Your task to perform on an android device: Show the shopping cart on target. Add "beats solo 3" to the cart on target, then select checkout. Image 0: 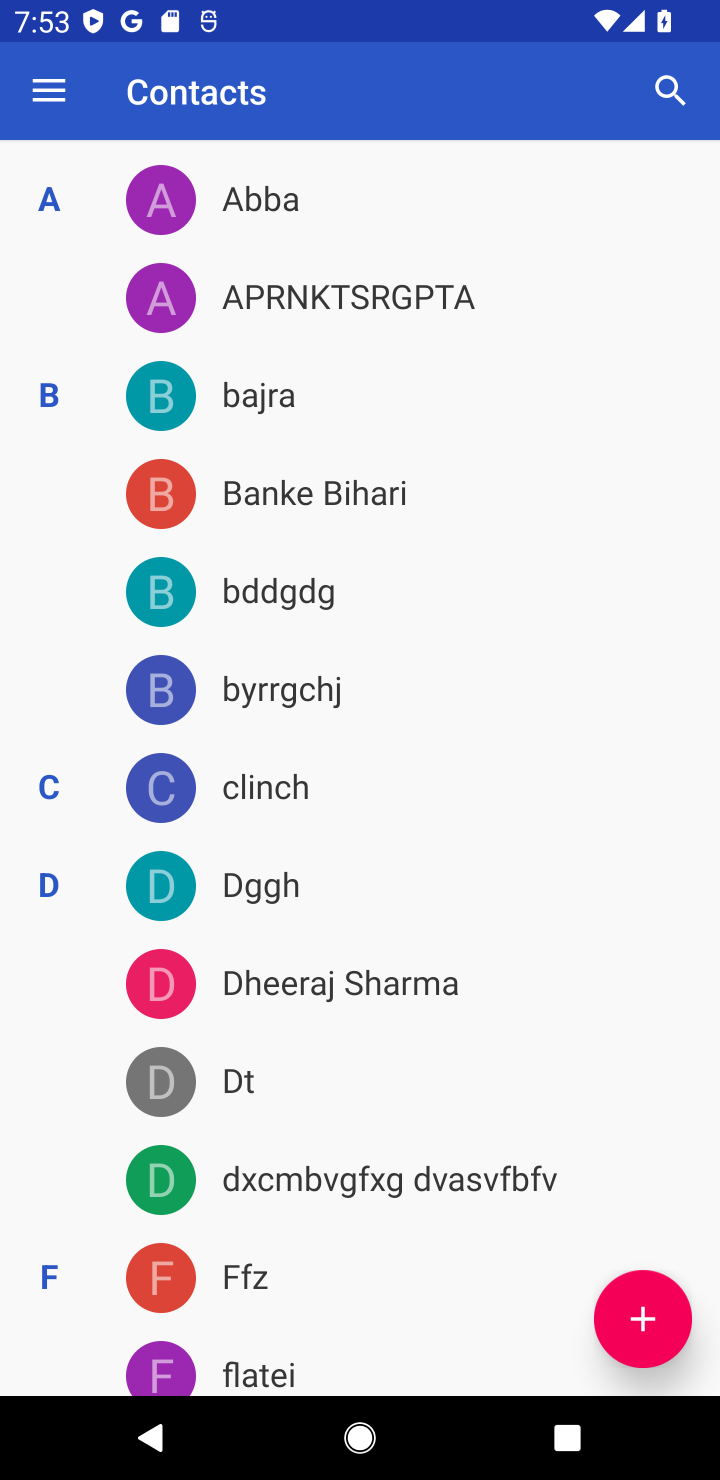
Step 0: press home button
Your task to perform on an android device: Show the shopping cart on target. Add "beats solo 3" to the cart on target, then select checkout. Image 1: 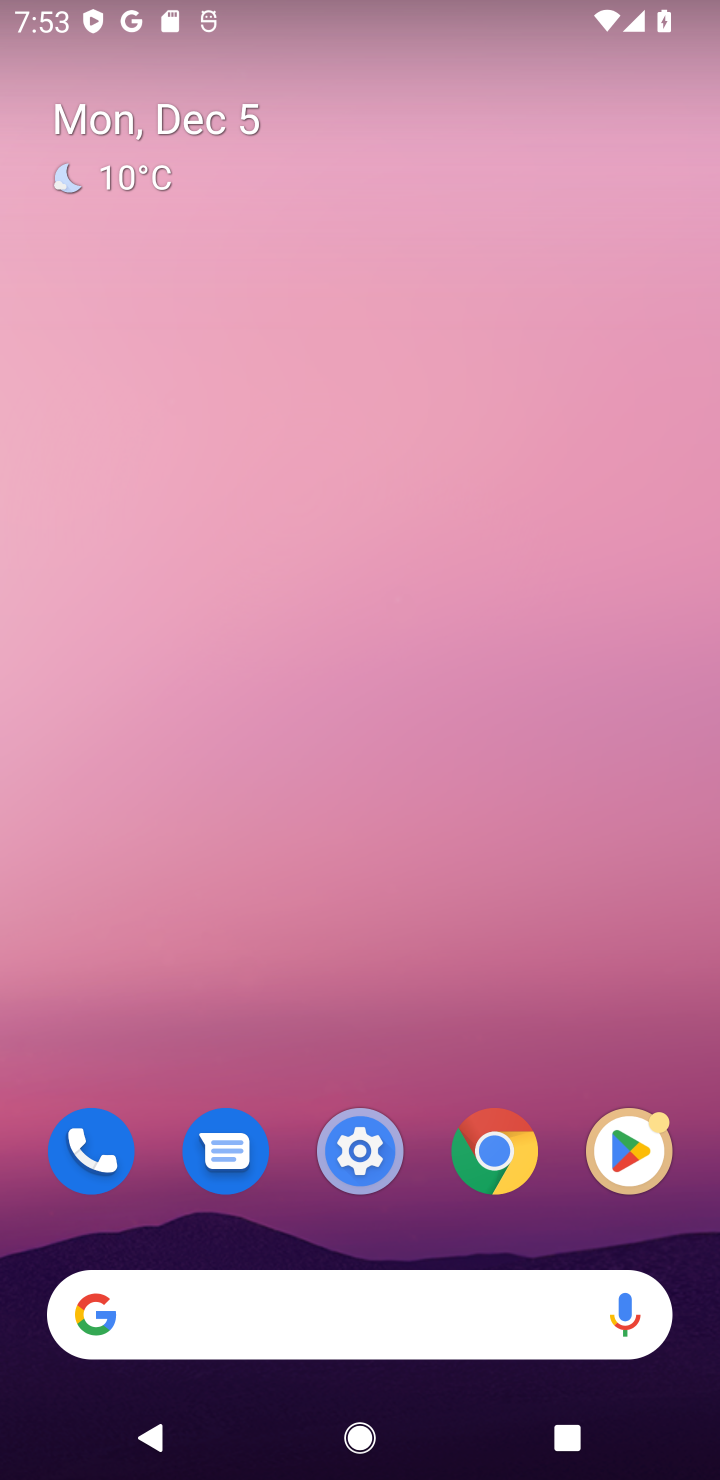
Step 1: click (261, 1322)
Your task to perform on an android device: Show the shopping cart on target. Add "beats solo 3" to the cart on target, then select checkout. Image 2: 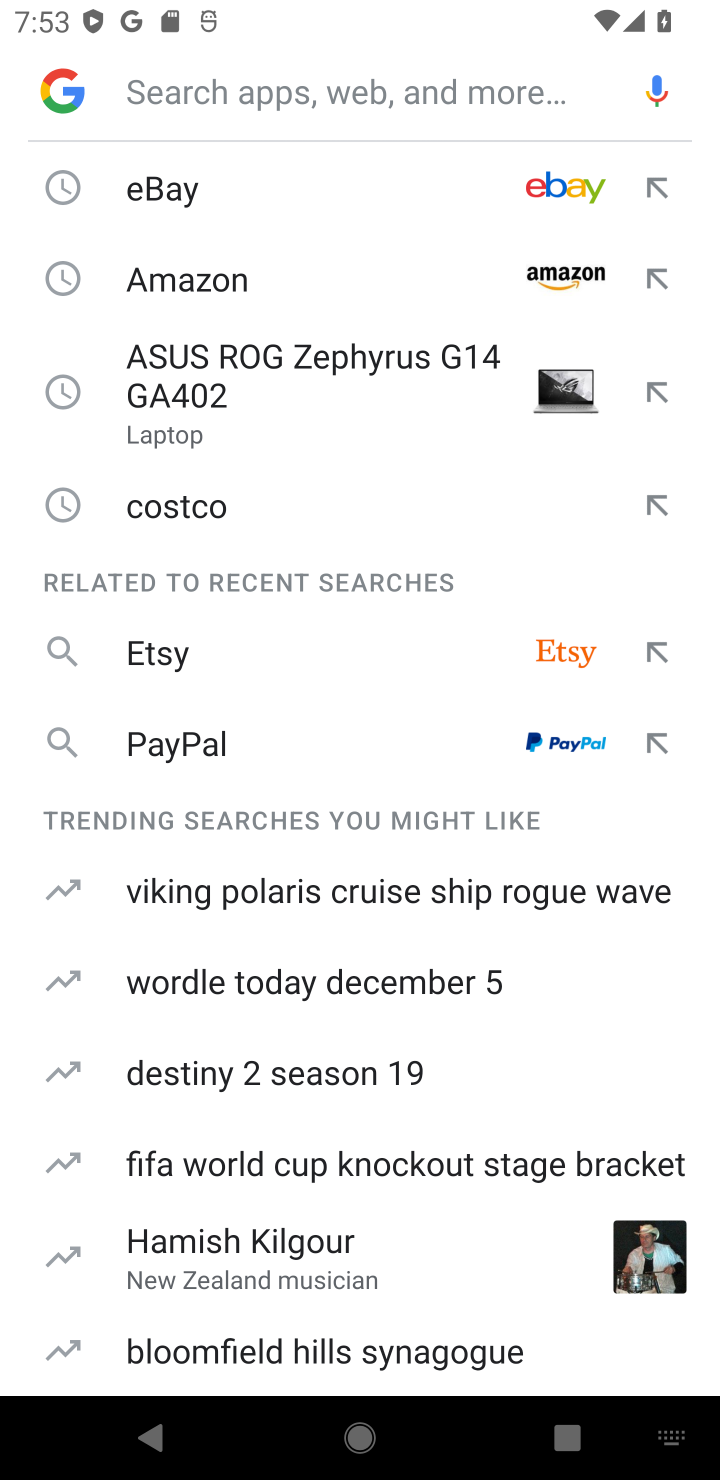
Step 2: type "target"
Your task to perform on an android device: Show the shopping cart on target. Add "beats solo 3" to the cart on target, then select checkout. Image 3: 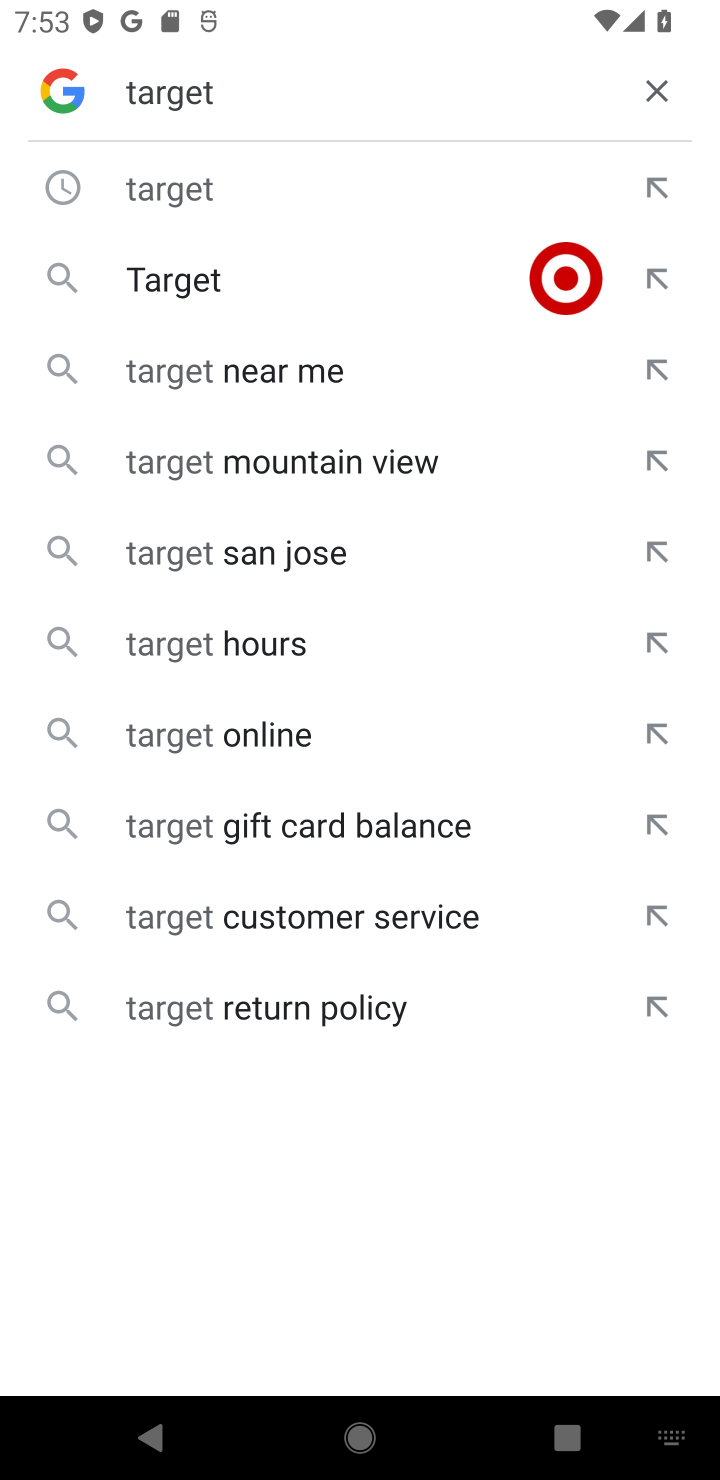
Step 3: click (296, 269)
Your task to perform on an android device: Show the shopping cart on target. Add "beats solo 3" to the cart on target, then select checkout. Image 4: 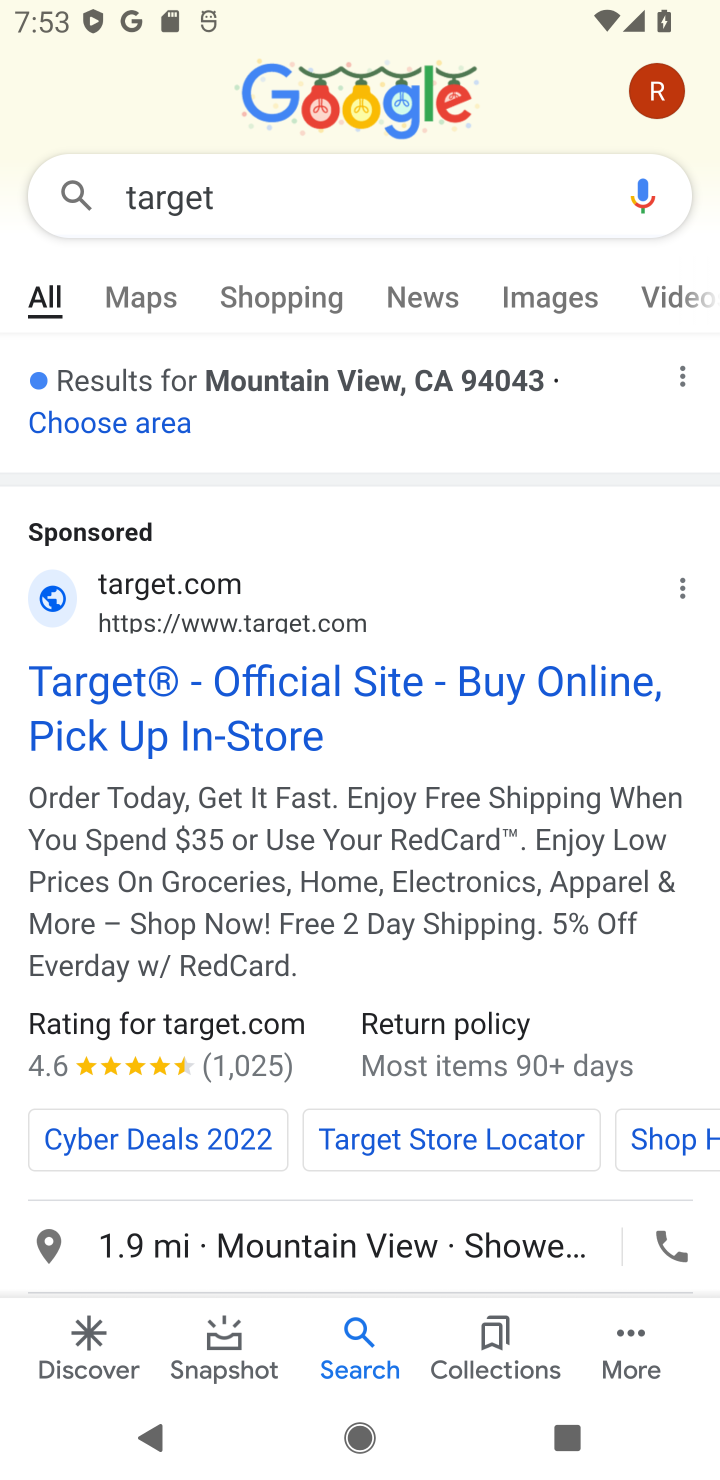
Step 4: click (304, 668)
Your task to perform on an android device: Show the shopping cart on target. Add "beats solo 3" to the cart on target, then select checkout. Image 5: 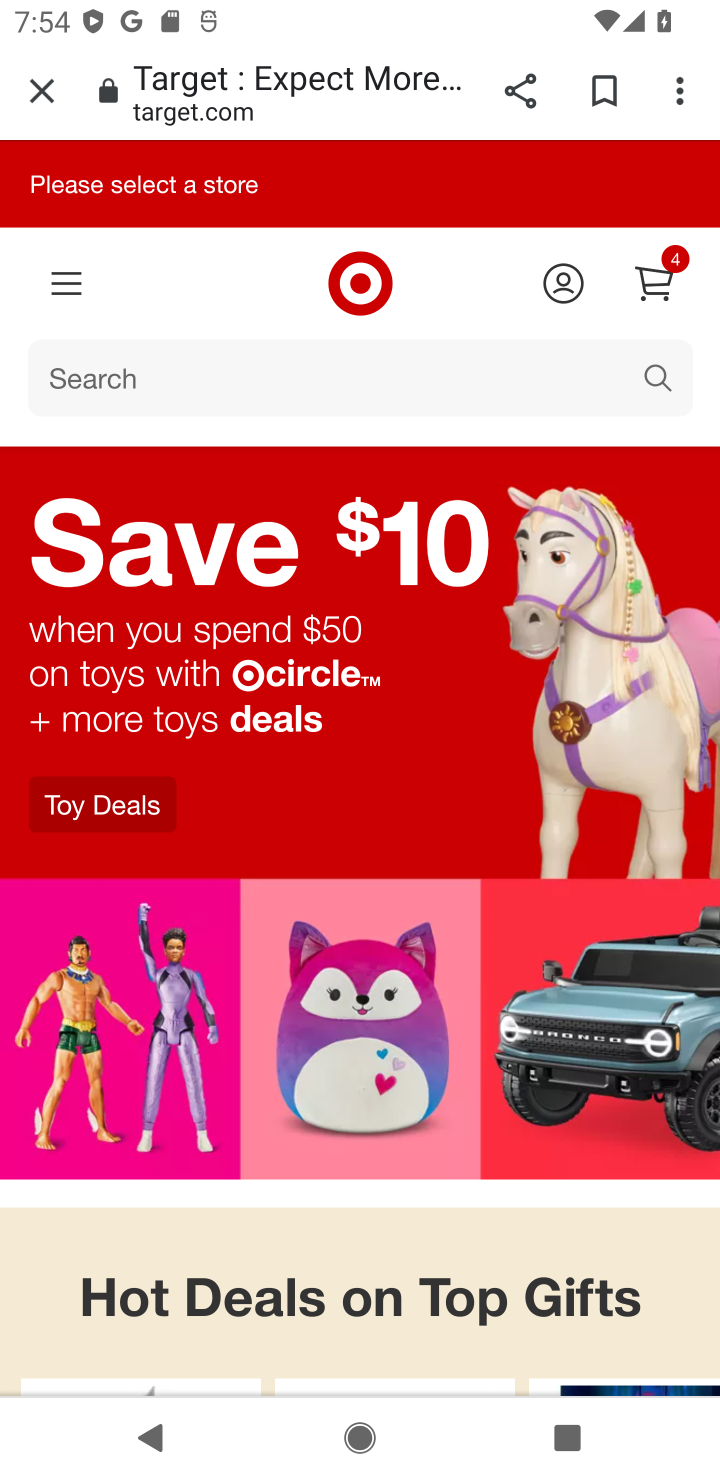
Step 5: click (328, 362)
Your task to perform on an android device: Show the shopping cart on target. Add "beats solo 3" to the cart on target, then select checkout. Image 6: 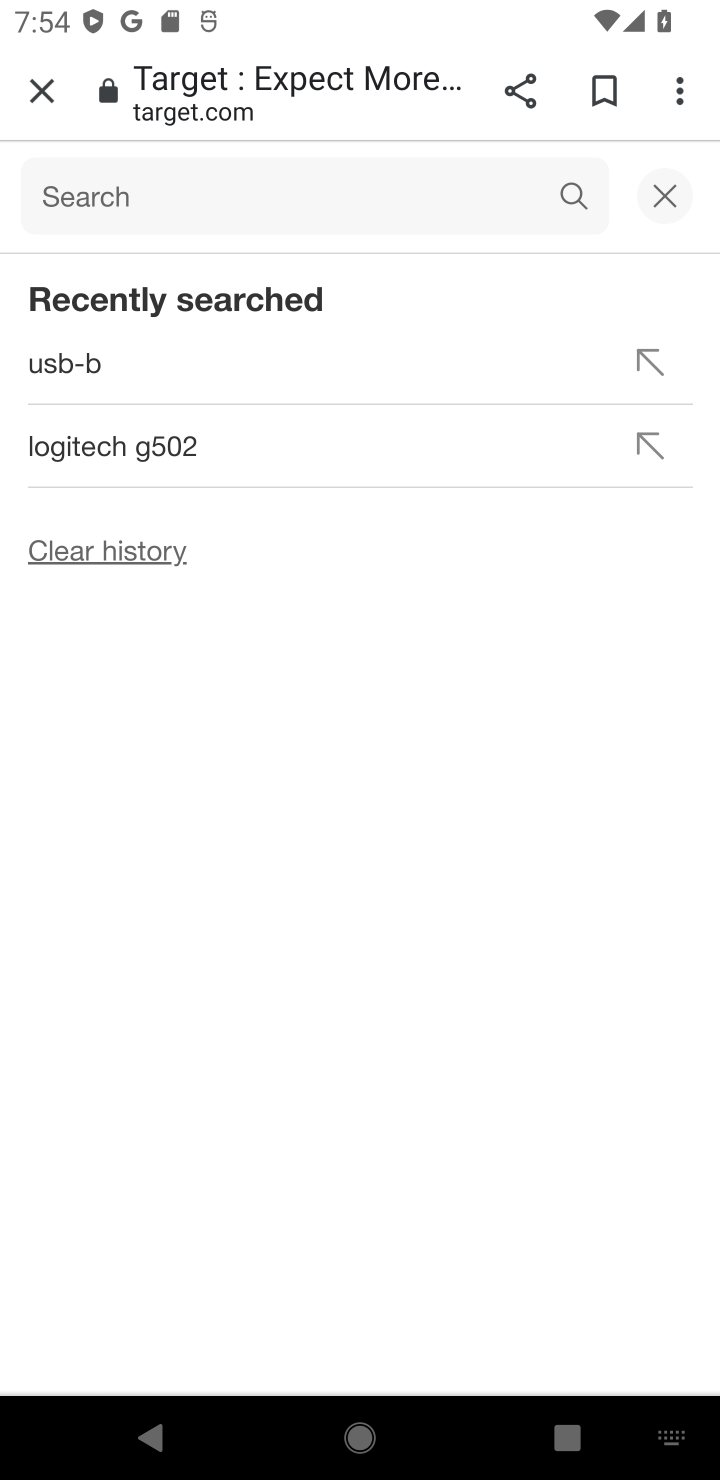
Step 6: click (237, 209)
Your task to perform on an android device: Show the shopping cart on target. Add "beats solo 3" to the cart on target, then select checkout. Image 7: 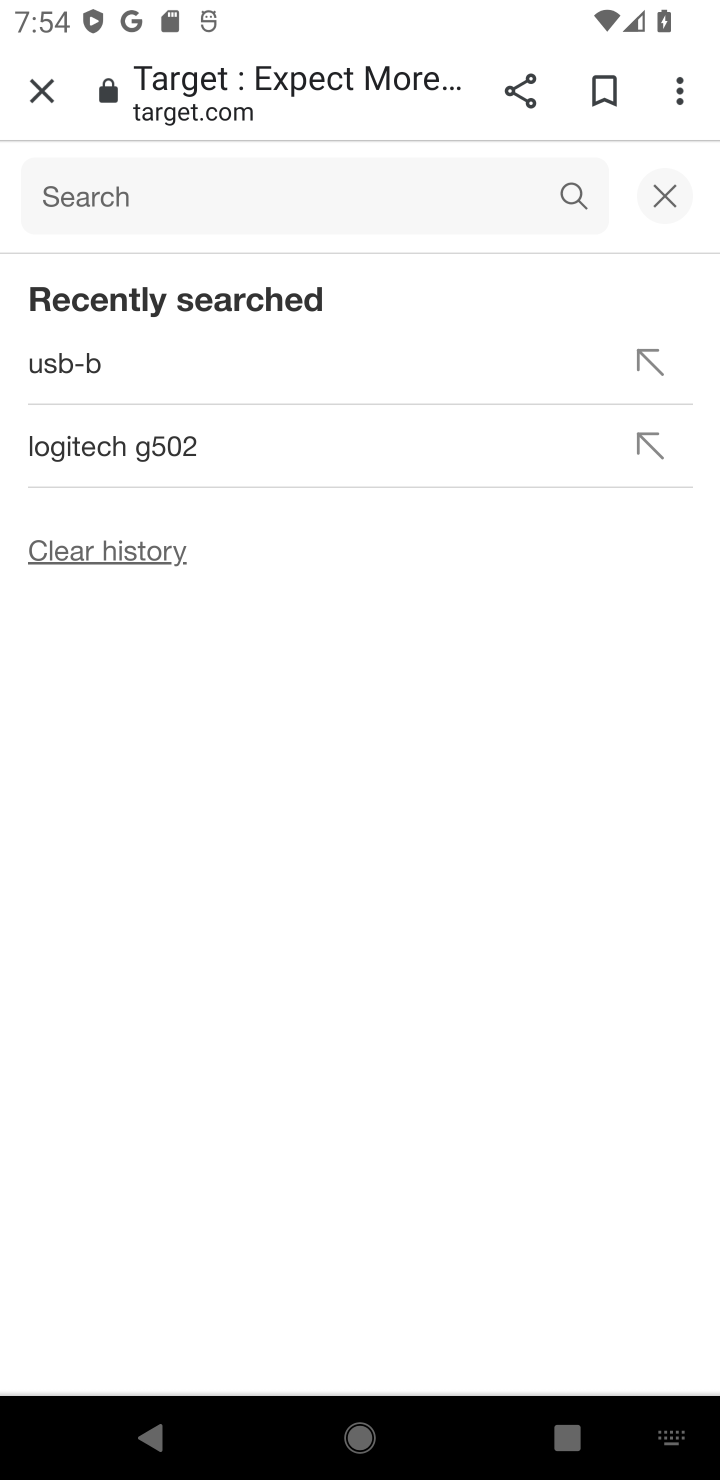
Step 7: type "beast solo"
Your task to perform on an android device: Show the shopping cart on target. Add "beats solo 3" to the cart on target, then select checkout. Image 8: 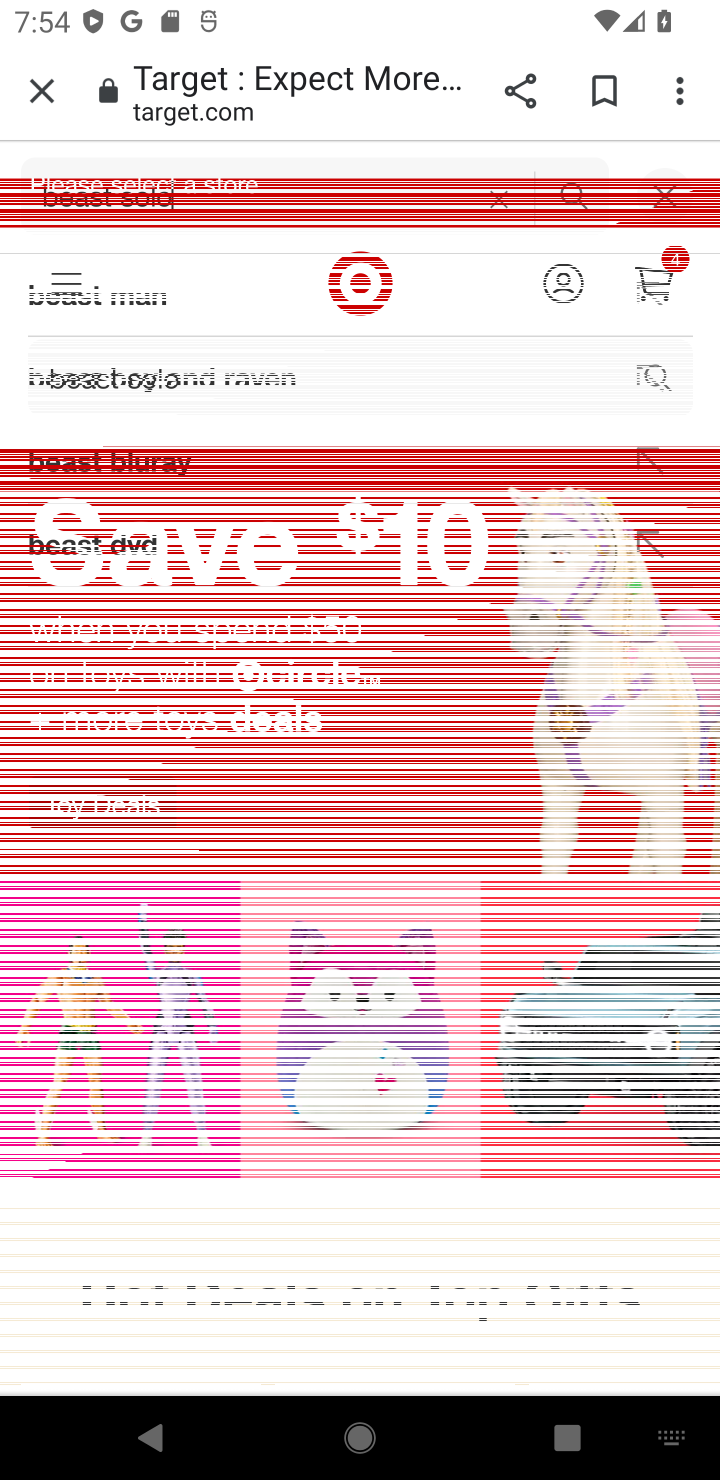
Step 8: click (592, 203)
Your task to perform on an android device: Show the shopping cart on target. Add "beats solo 3" to the cart on target, then select checkout. Image 9: 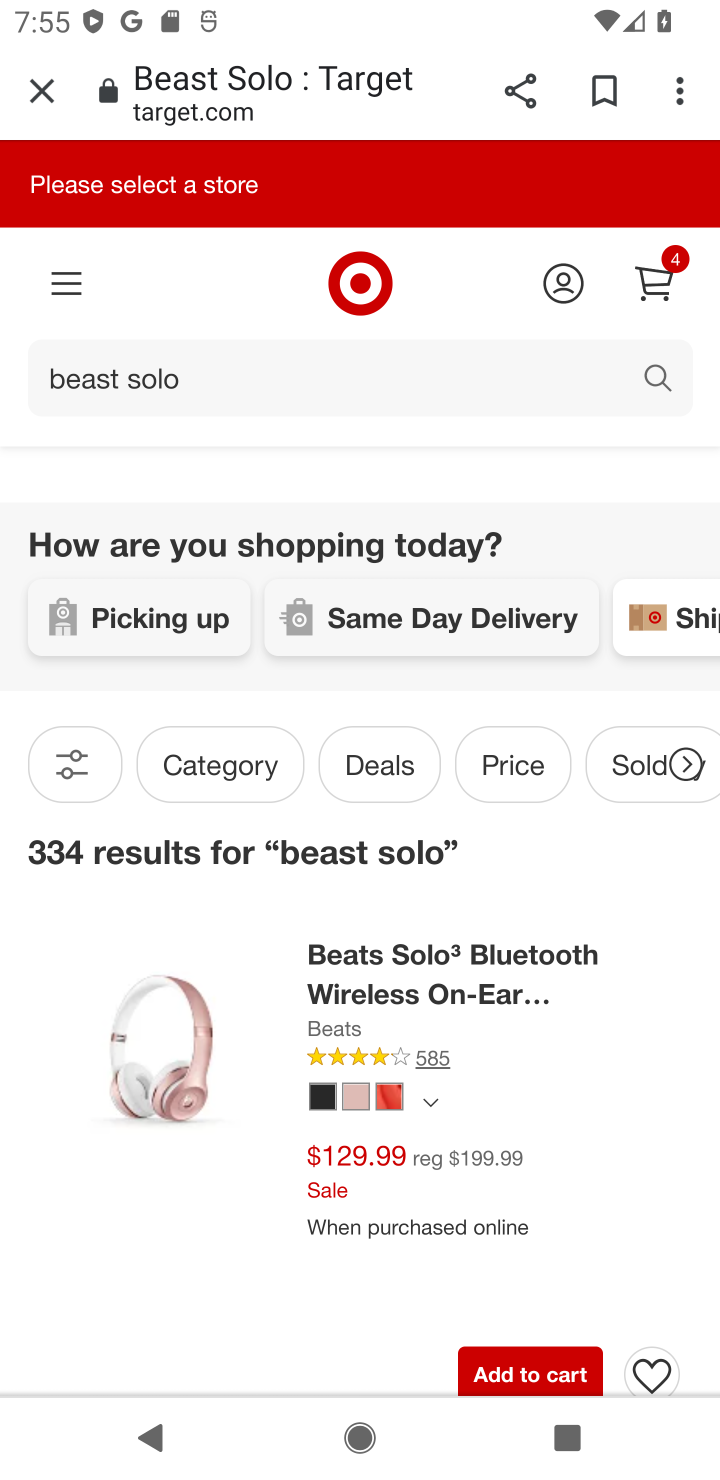
Step 9: click (520, 1369)
Your task to perform on an android device: Show the shopping cart on target. Add "beats solo 3" to the cart on target, then select checkout. Image 10: 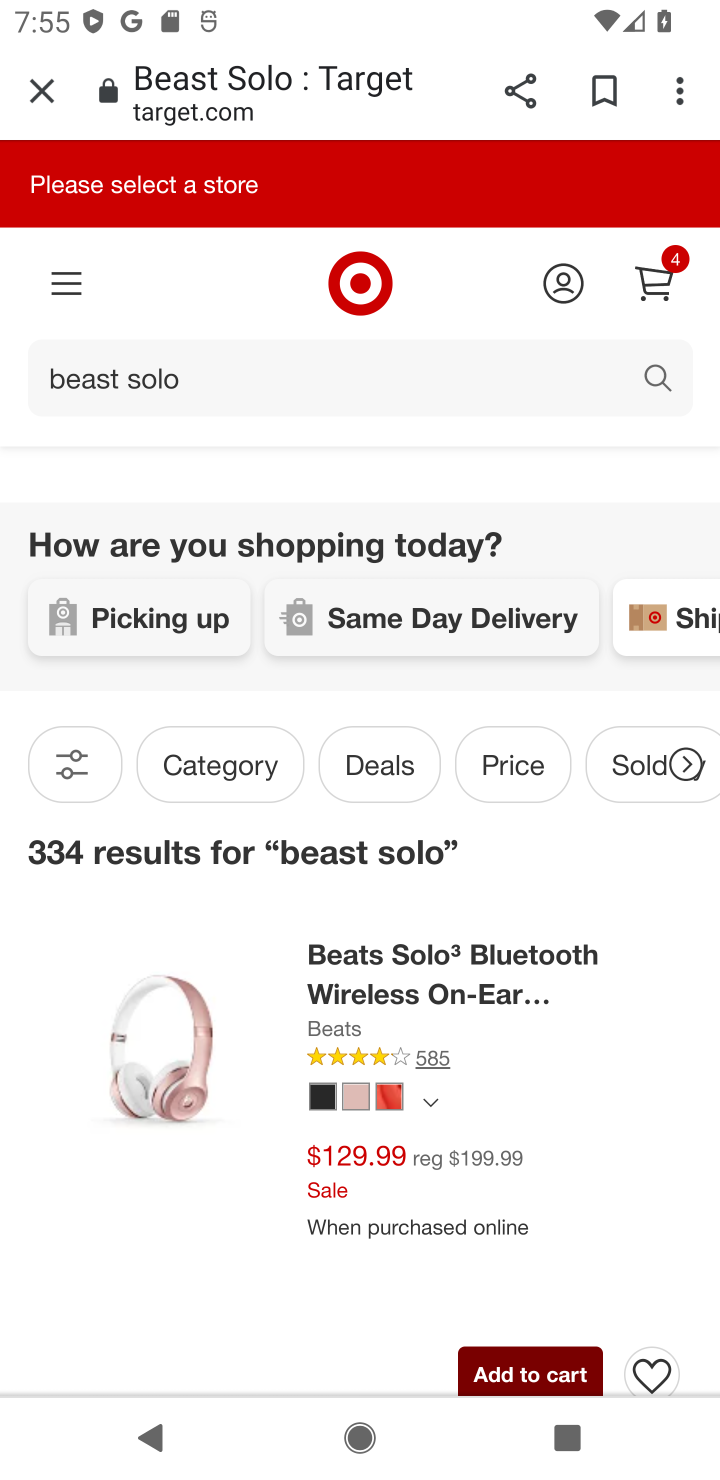
Step 10: task complete